Your task to perform on an android device: Is it going to rain this weekend? Image 0: 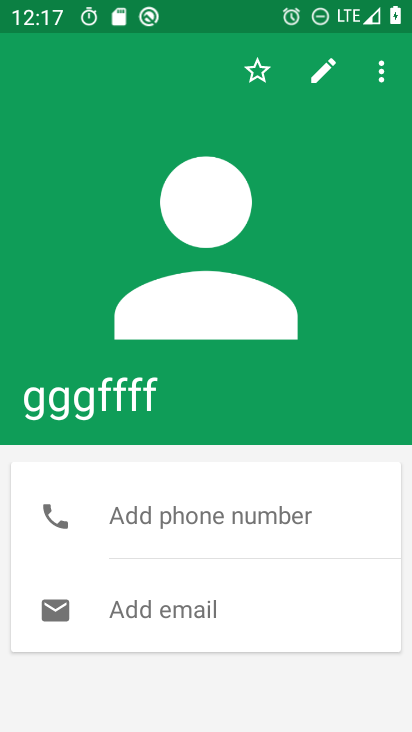
Step 0: press home button
Your task to perform on an android device: Is it going to rain this weekend? Image 1: 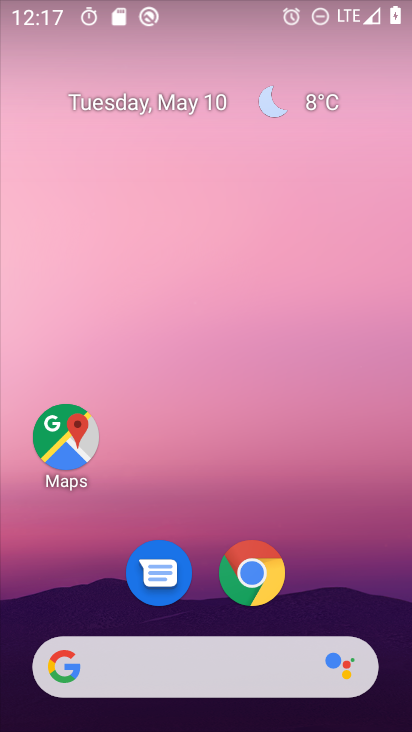
Step 1: drag from (335, 603) to (298, 668)
Your task to perform on an android device: Is it going to rain this weekend? Image 2: 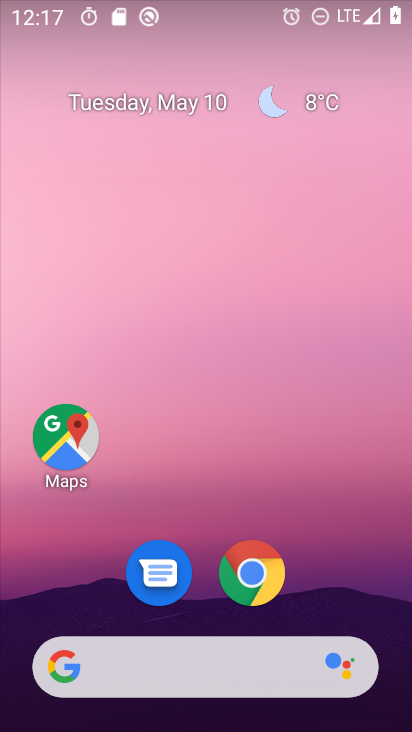
Step 2: click (326, 100)
Your task to perform on an android device: Is it going to rain this weekend? Image 3: 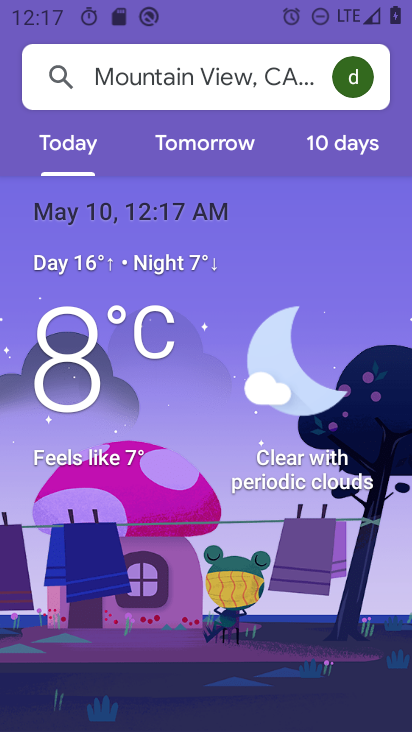
Step 3: click (361, 152)
Your task to perform on an android device: Is it going to rain this weekend? Image 4: 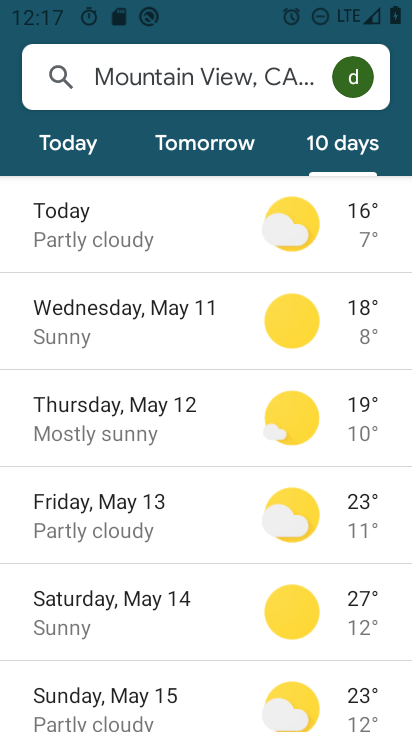
Step 4: task complete